Your task to perform on an android device: Go to network settings Image 0: 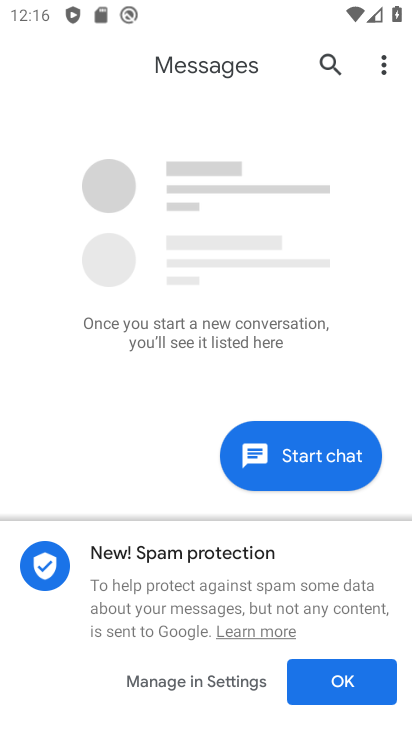
Step 0: press home button
Your task to perform on an android device: Go to network settings Image 1: 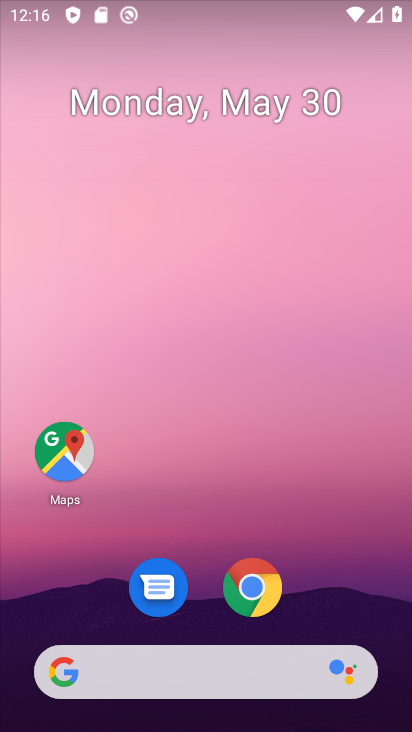
Step 1: drag from (368, 543) to (322, 122)
Your task to perform on an android device: Go to network settings Image 2: 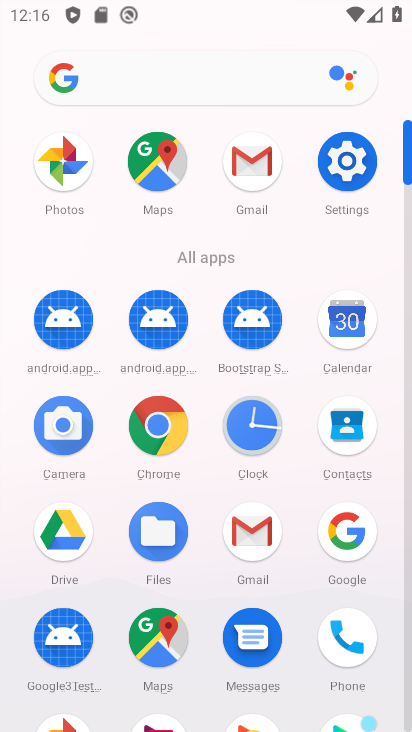
Step 2: click (366, 171)
Your task to perform on an android device: Go to network settings Image 3: 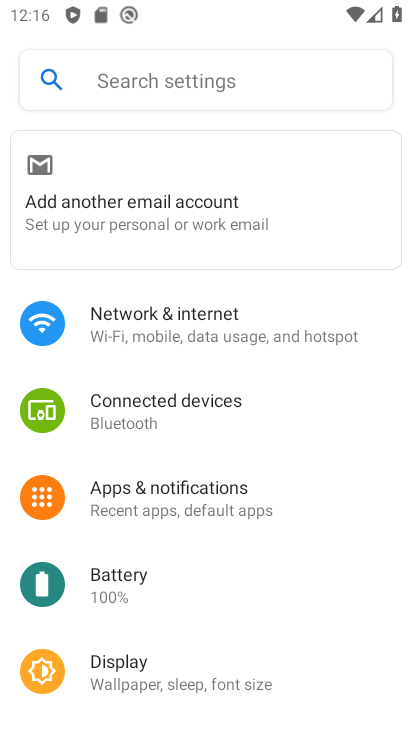
Step 3: click (223, 309)
Your task to perform on an android device: Go to network settings Image 4: 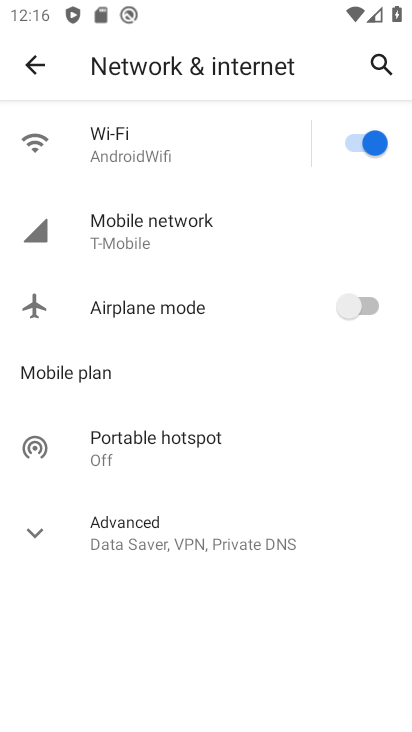
Step 4: task complete